Your task to perform on an android device: Go to sound settings Image 0: 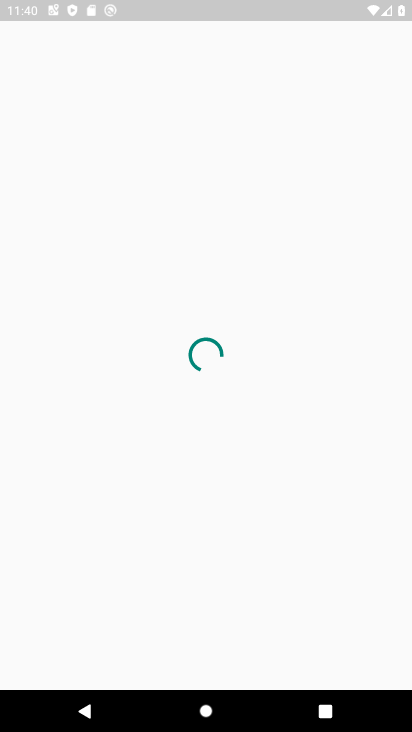
Step 0: press home button
Your task to perform on an android device: Go to sound settings Image 1: 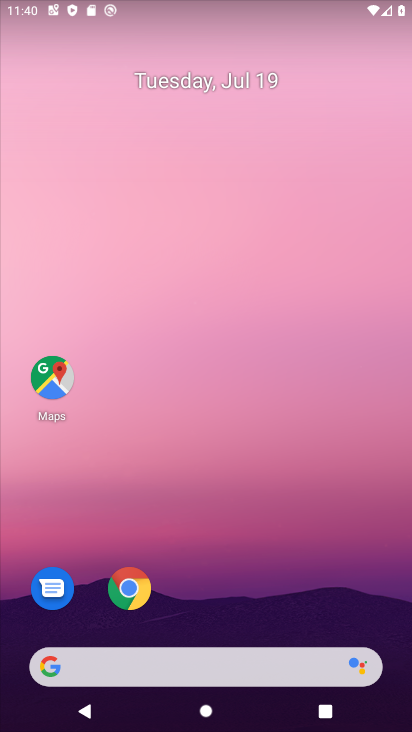
Step 1: click (305, 16)
Your task to perform on an android device: Go to sound settings Image 2: 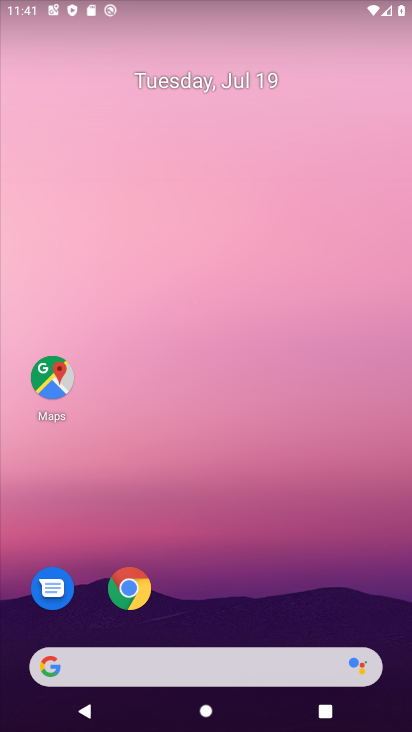
Step 2: drag from (267, 606) to (297, 38)
Your task to perform on an android device: Go to sound settings Image 3: 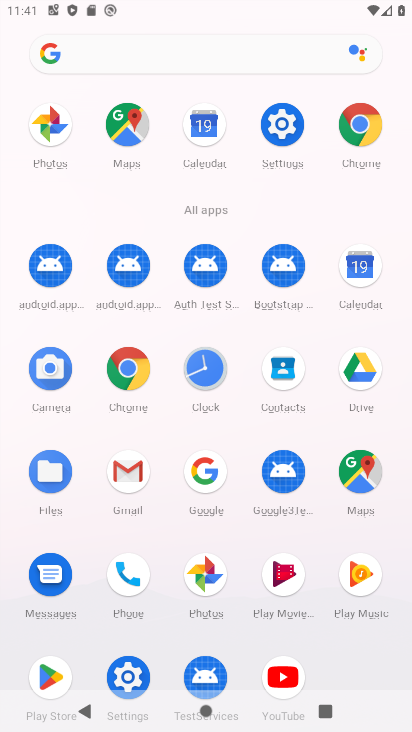
Step 3: click (136, 674)
Your task to perform on an android device: Go to sound settings Image 4: 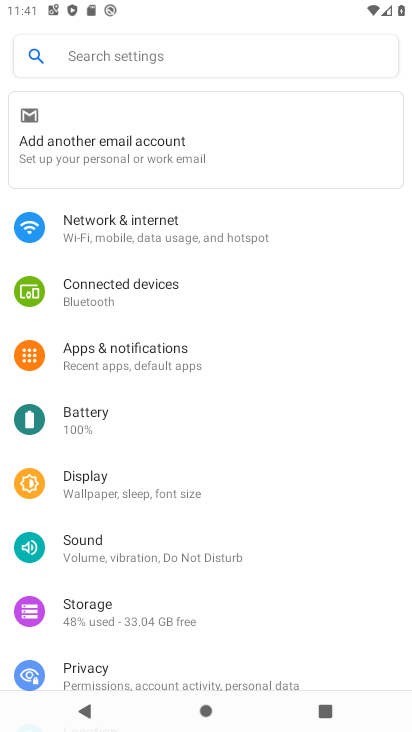
Step 4: click (100, 544)
Your task to perform on an android device: Go to sound settings Image 5: 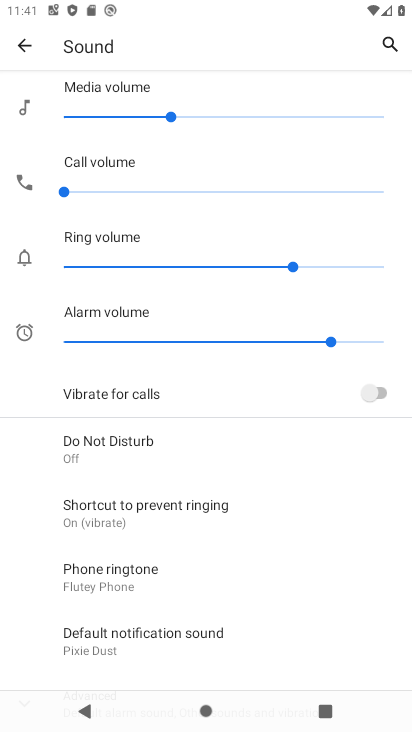
Step 5: task complete